Your task to perform on an android device: toggle location history Image 0: 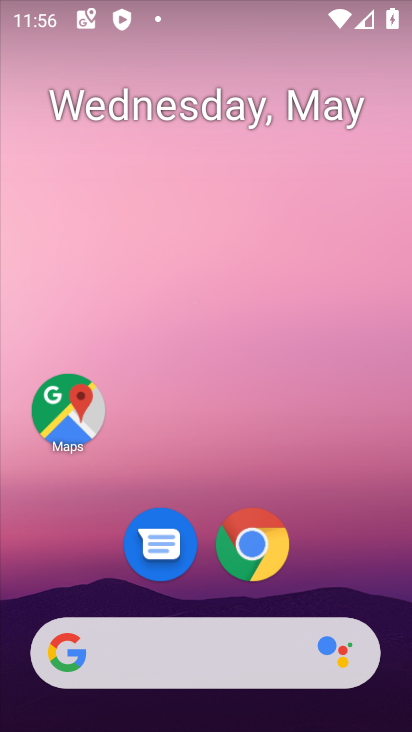
Step 0: drag from (284, 703) to (228, 52)
Your task to perform on an android device: toggle location history Image 1: 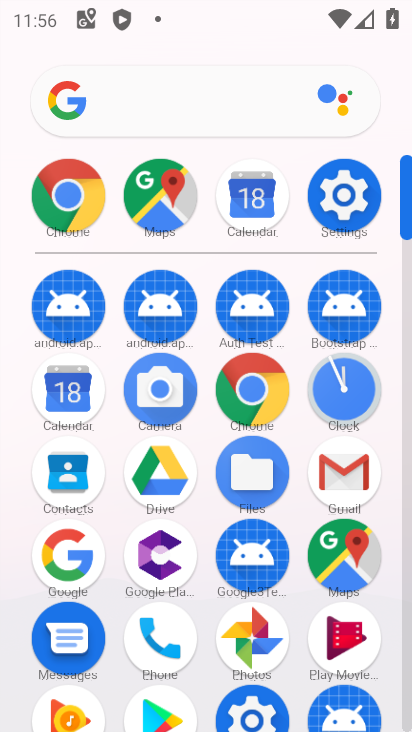
Step 1: click (357, 195)
Your task to perform on an android device: toggle location history Image 2: 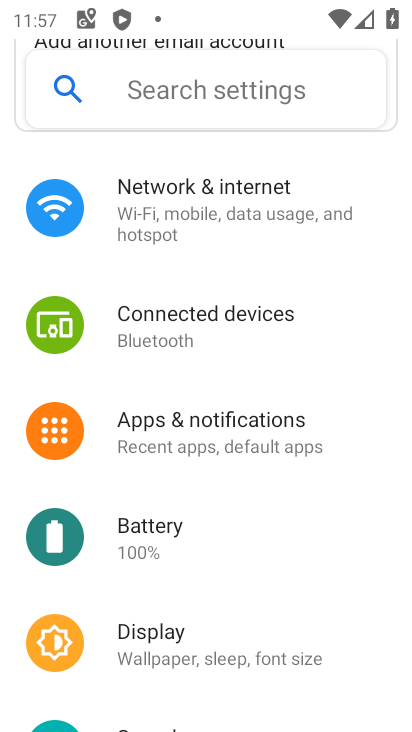
Step 2: drag from (235, 515) to (257, 253)
Your task to perform on an android device: toggle location history Image 3: 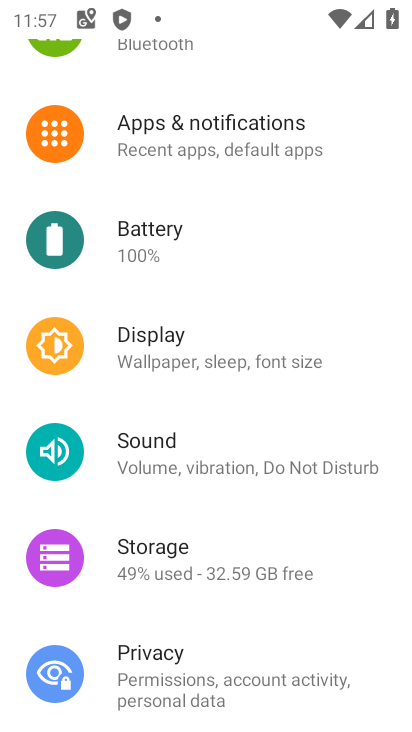
Step 3: drag from (243, 655) to (252, 468)
Your task to perform on an android device: toggle location history Image 4: 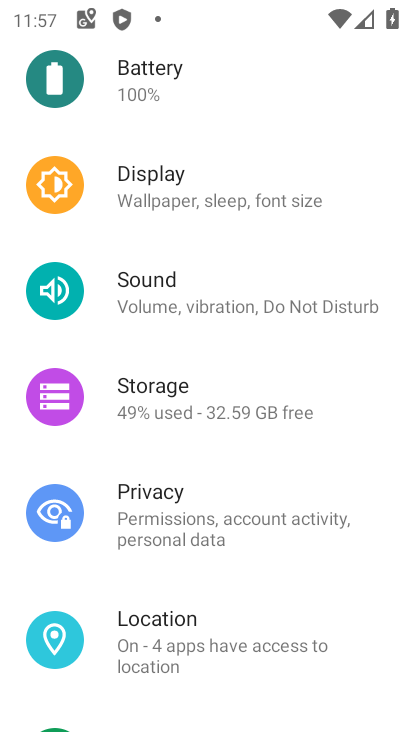
Step 4: click (187, 646)
Your task to perform on an android device: toggle location history Image 5: 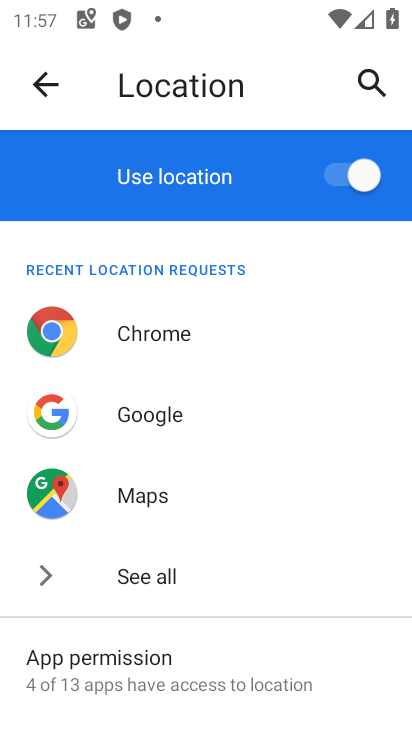
Step 5: drag from (287, 665) to (274, 234)
Your task to perform on an android device: toggle location history Image 6: 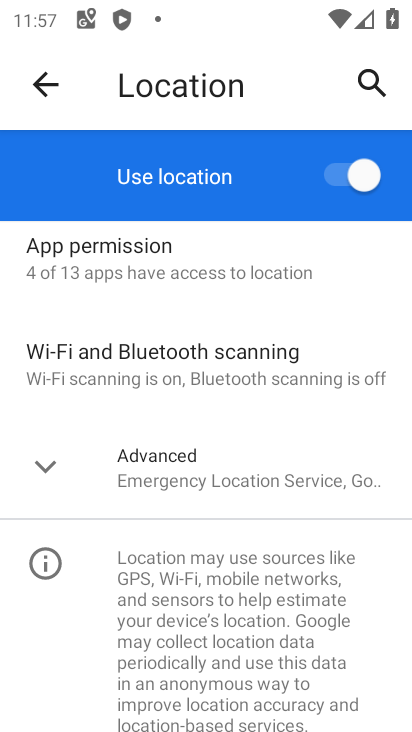
Step 6: click (203, 444)
Your task to perform on an android device: toggle location history Image 7: 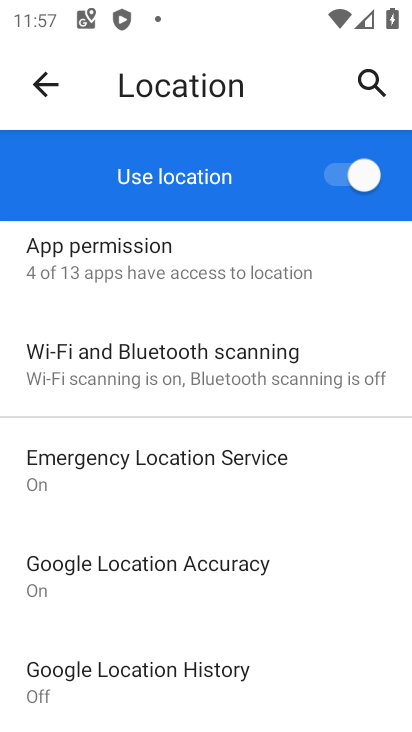
Step 7: drag from (353, 638) to (379, 389)
Your task to perform on an android device: toggle location history Image 8: 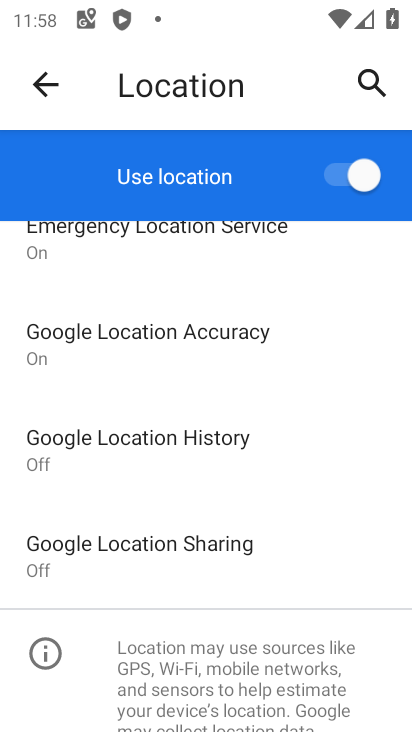
Step 8: click (247, 441)
Your task to perform on an android device: toggle location history Image 9: 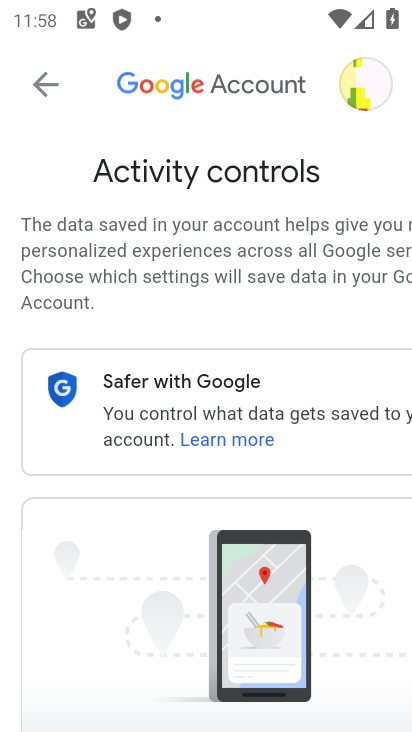
Step 9: press home button
Your task to perform on an android device: toggle location history Image 10: 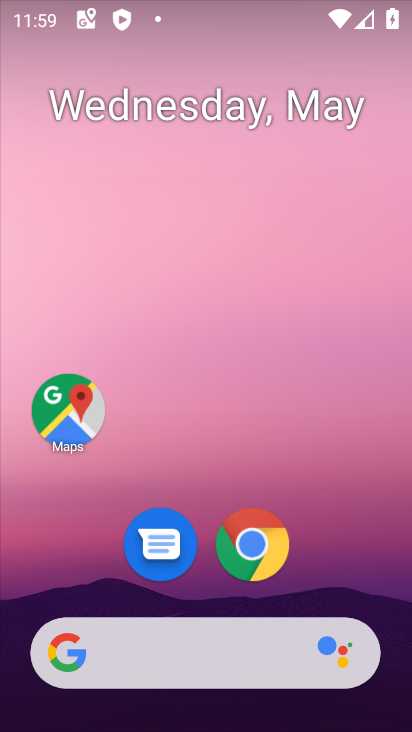
Step 10: drag from (278, 628) to (260, 0)
Your task to perform on an android device: toggle location history Image 11: 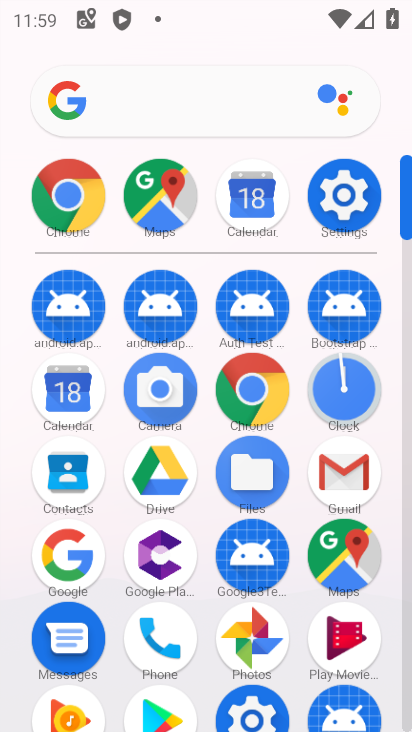
Step 11: click (349, 198)
Your task to perform on an android device: toggle location history Image 12: 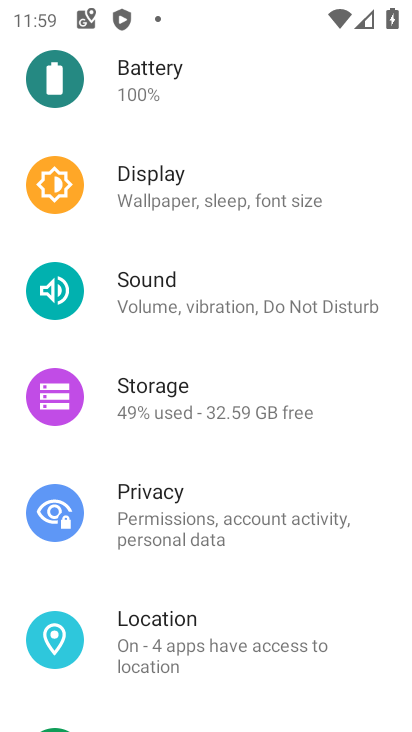
Step 12: click (187, 635)
Your task to perform on an android device: toggle location history Image 13: 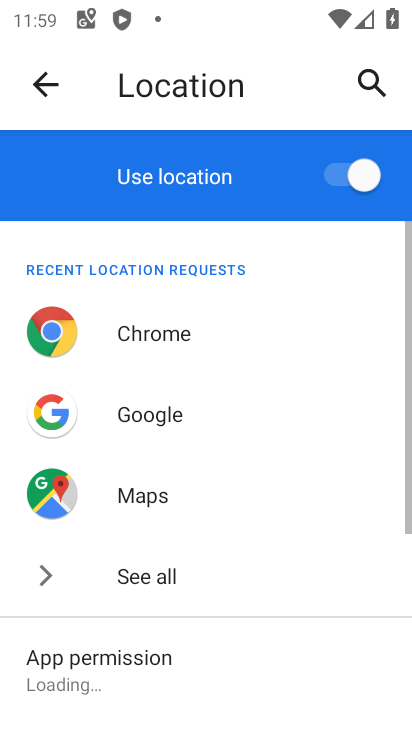
Step 13: drag from (187, 635) to (193, 242)
Your task to perform on an android device: toggle location history Image 14: 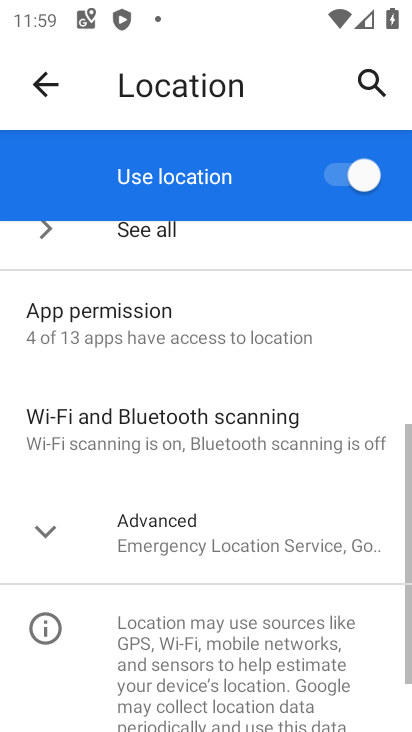
Step 14: drag from (196, 696) to (191, 277)
Your task to perform on an android device: toggle location history Image 15: 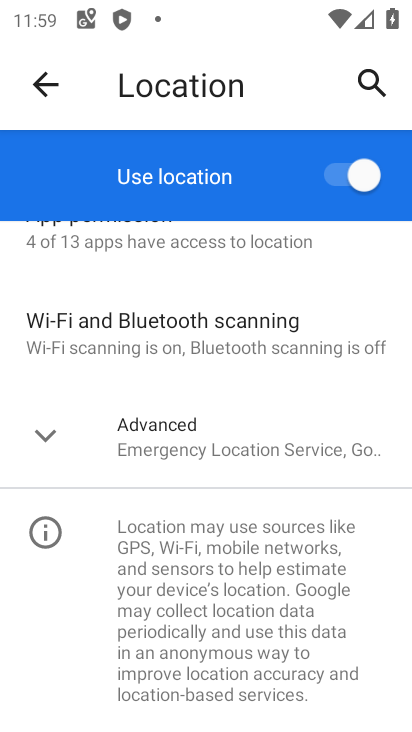
Step 15: drag from (258, 707) to (243, 400)
Your task to perform on an android device: toggle location history Image 16: 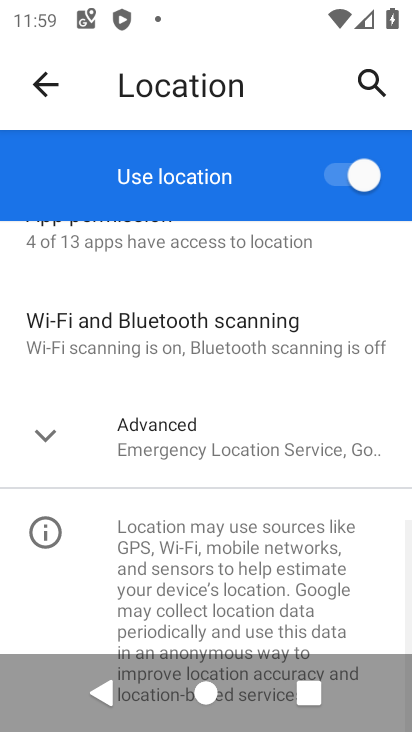
Step 16: click (192, 457)
Your task to perform on an android device: toggle location history Image 17: 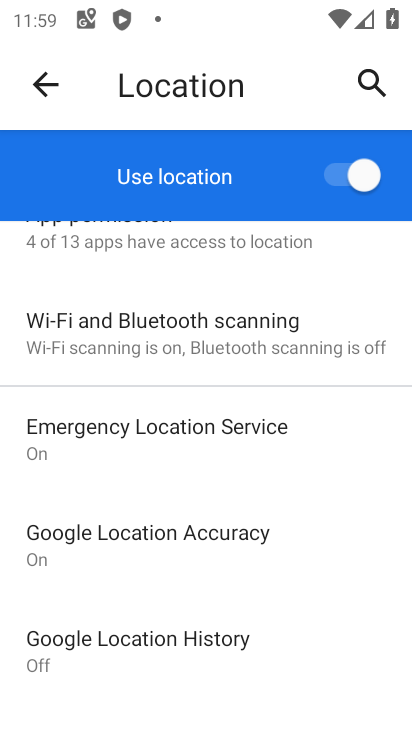
Step 17: click (214, 646)
Your task to perform on an android device: toggle location history Image 18: 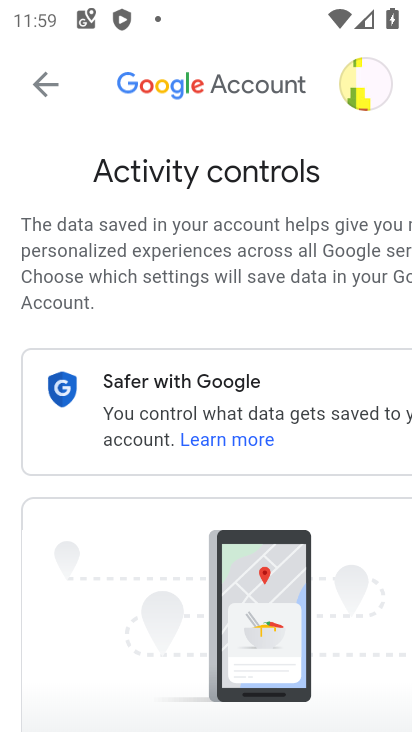
Step 18: drag from (348, 645) to (315, 179)
Your task to perform on an android device: toggle location history Image 19: 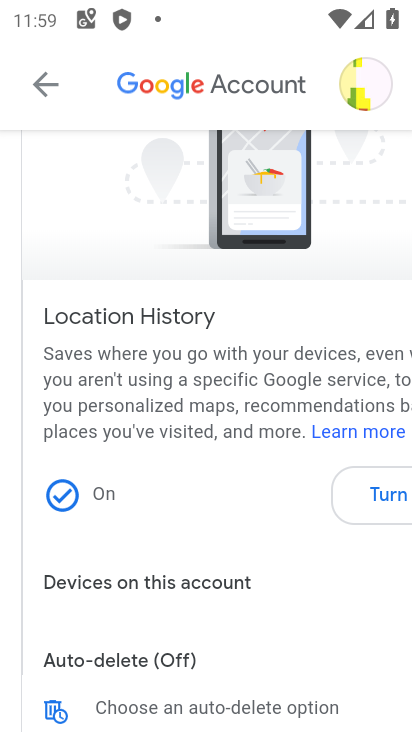
Step 19: click (394, 489)
Your task to perform on an android device: toggle location history Image 20: 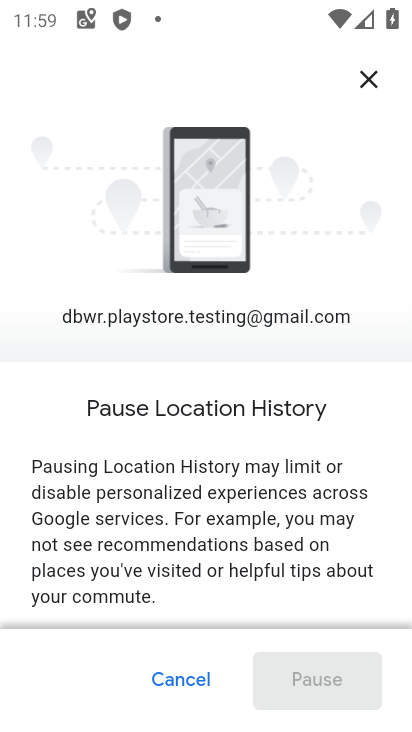
Step 20: drag from (333, 551) to (384, 215)
Your task to perform on an android device: toggle location history Image 21: 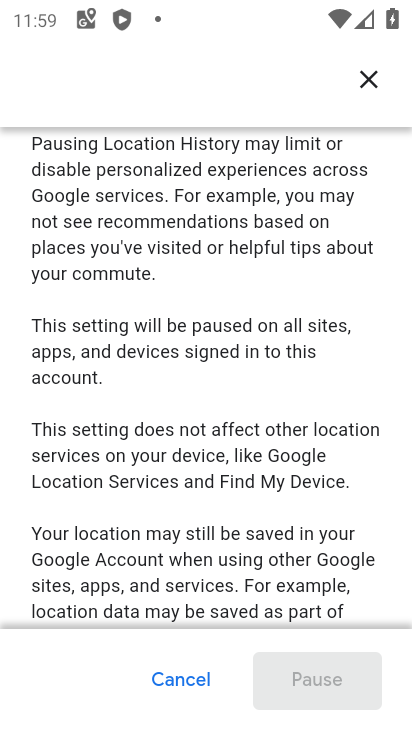
Step 21: drag from (379, 521) to (407, 131)
Your task to perform on an android device: toggle location history Image 22: 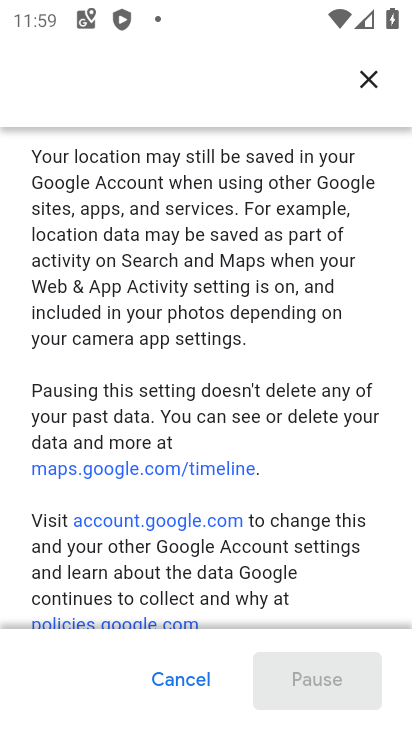
Step 22: drag from (314, 584) to (406, 180)
Your task to perform on an android device: toggle location history Image 23: 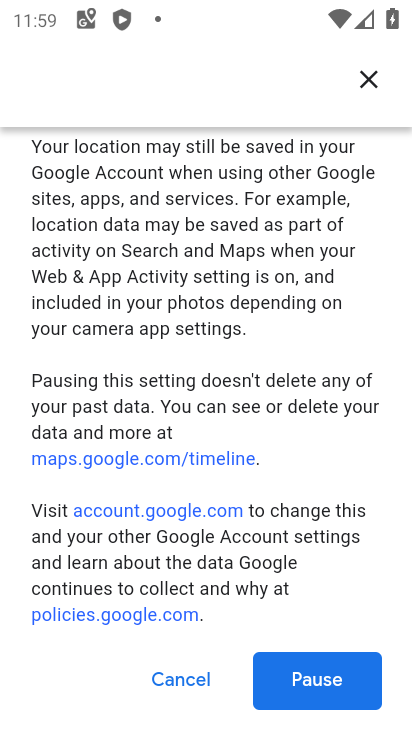
Step 23: click (304, 682)
Your task to perform on an android device: toggle location history Image 24: 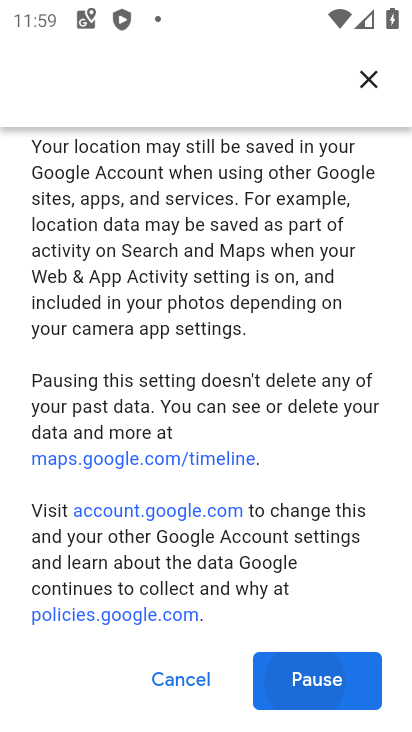
Step 24: click (304, 682)
Your task to perform on an android device: toggle location history Image 25: 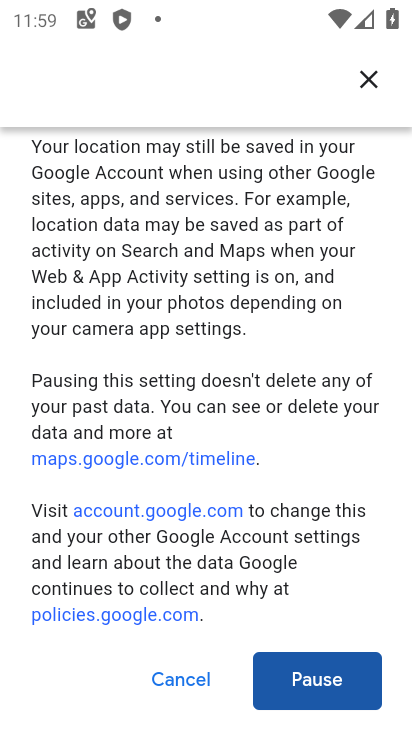
Step 25: click (304, 682)
Your task to perform on an android device: toggle location history Image 26: 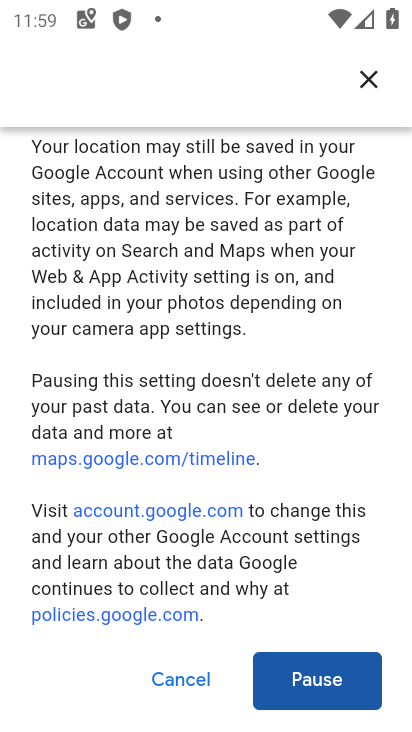
Step 26: click (304, 682)
Your task to perform on an android device: toggle location history Image 27: 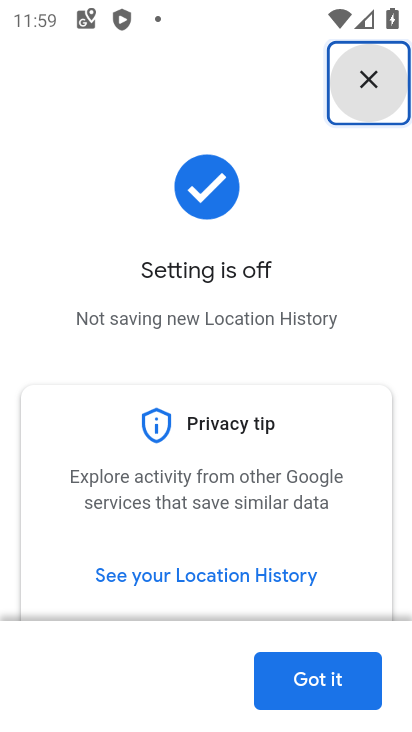
Step 27: task complete